Your task to perform on an android device: check storage Image 0: 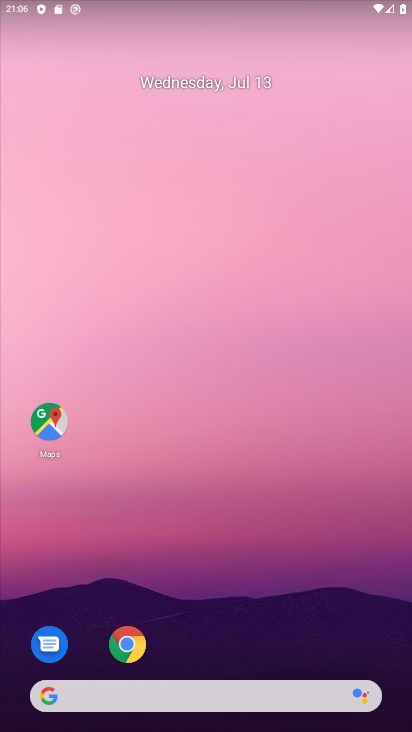
Step 0: drag from (262, 649) to (239, 182)
Your task to perform on an android device: check storage Image 1: 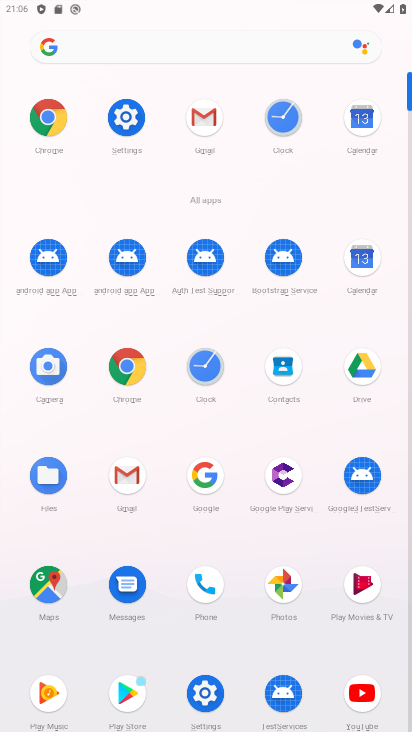
Step 1: click (136, 119)
Your task to perform on an android device: check storage Image 2: 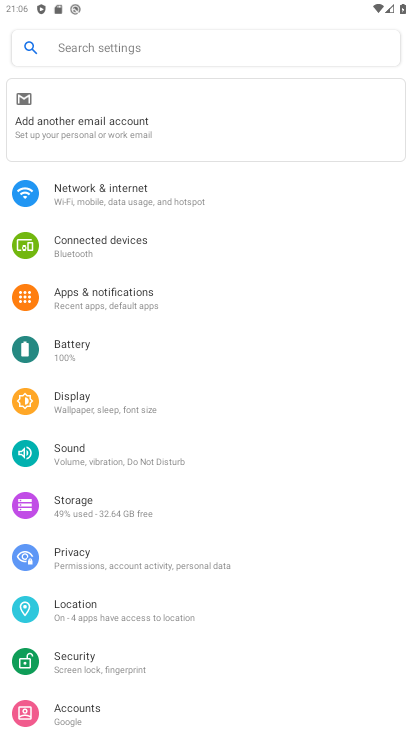
Step 2: click (99, 516)
Your task to perform on an android device: check storage Image 3: 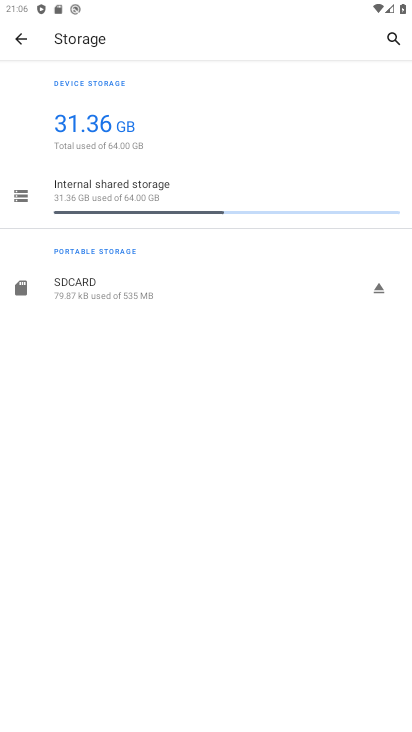
Step 3: task complete